Your task to perform on an android device: change keyboard looks Image 0: 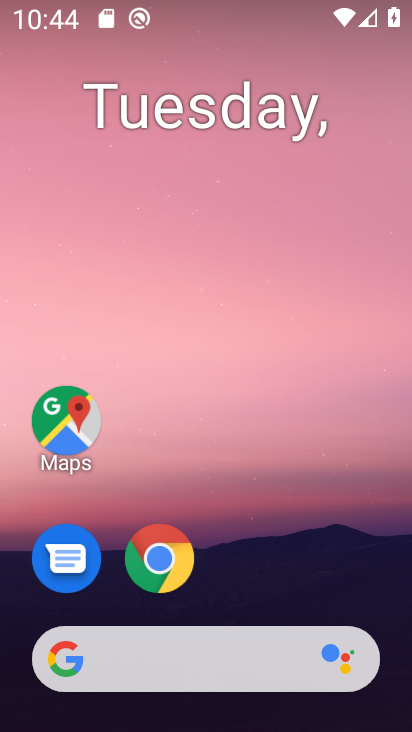
Step 0: drag from (334, 567) to (351, 64)
Your task to perform on an android device: change keyboard looks Image 1: 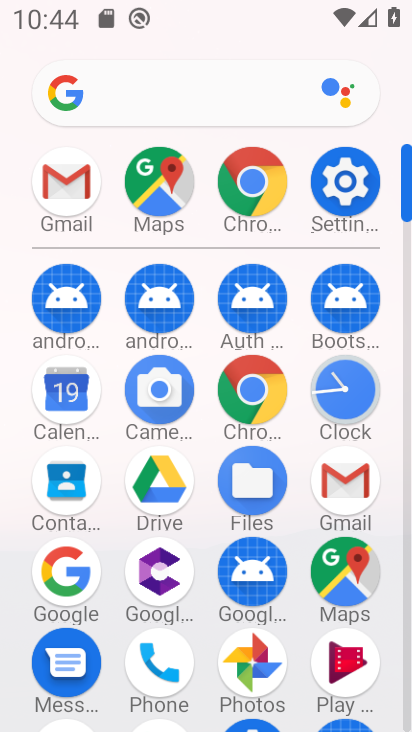
Step 1: click (361, 192)
Your task to perform on an android device: change keyboard looks Image 2: 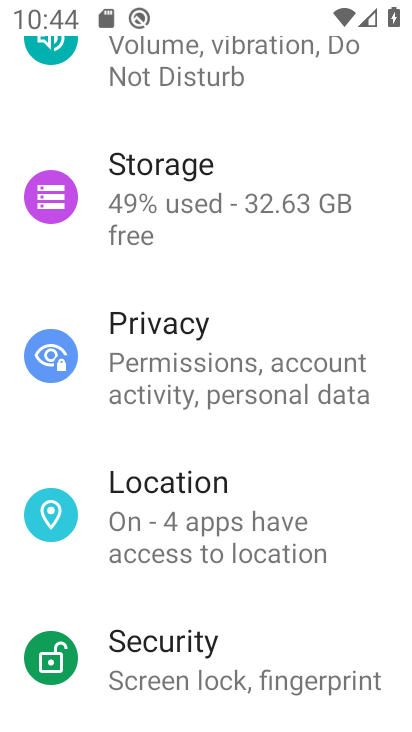
Step 2: drag from (375, 190) to (380, 293)
Your task to perform on an android device: change keyboard looks Image 3: 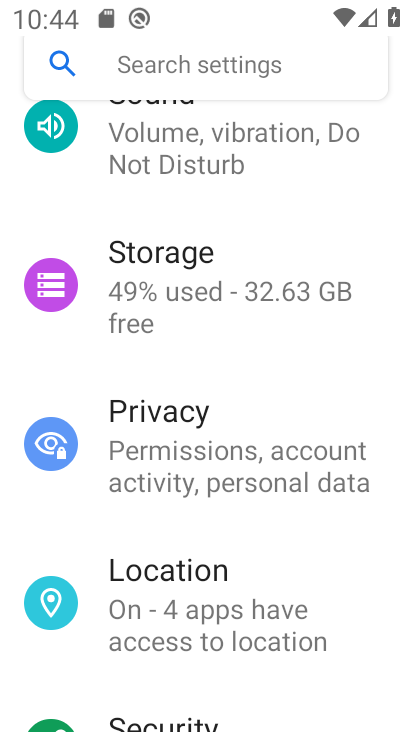
Step 3: drag from (377, 178) to (363, 286)
Your task to perform on an android device: change keyboard looks Image 4: 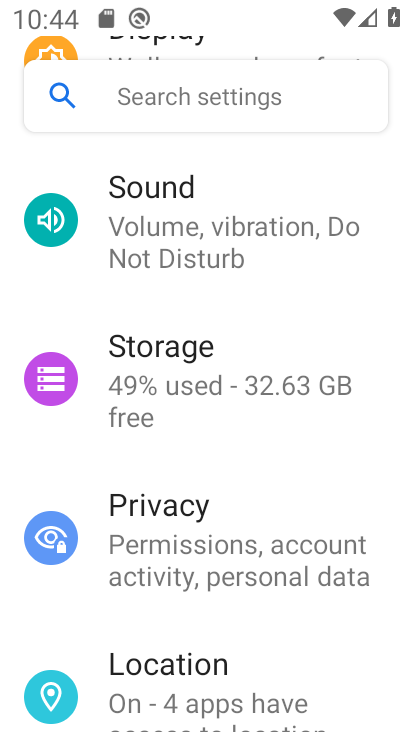
Step 4: drag from (379, 169) to (373, 313)
Your task to perform on an android device: change keyboard looks Image 5: 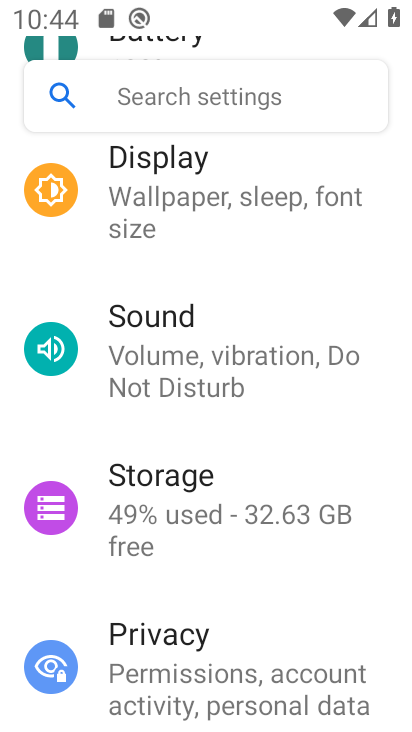
Step 5: drag from (377, 166) to (378, 298)
Your task to perform on an android device: change keyboard looks Image 6: 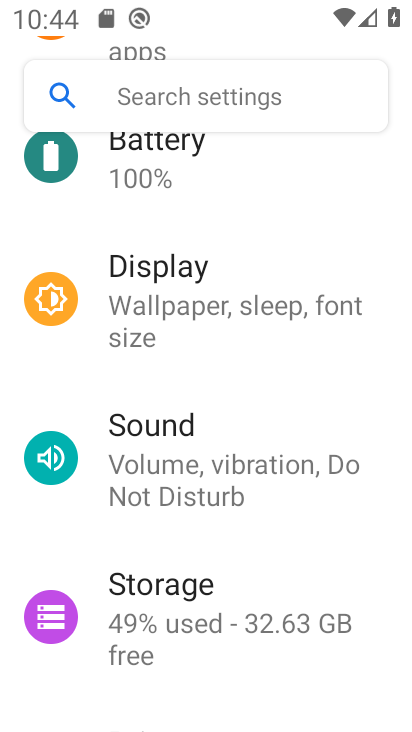
Step 6: drag from (365, 162) to (362, 301)
Your task to perform on an android device: change keyboard looks Image 7: 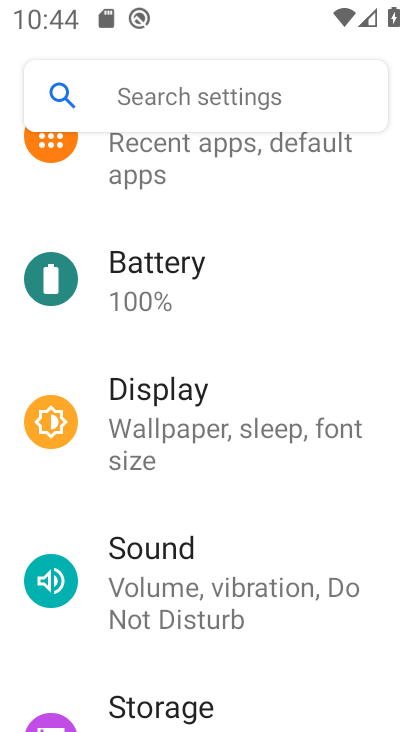
Step 7: drag from (366, 160) to (363, 339)
Your task to perform on an android device: change keyboard looks Image 8: 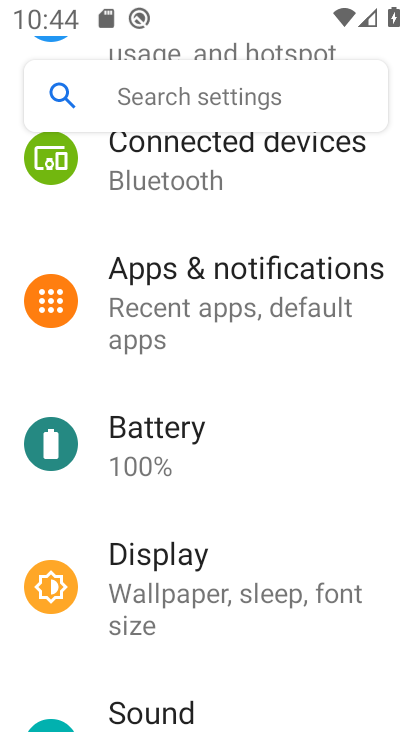
Step 8: drag from (365, 178) to (358, 399)
Your task to perform on an android device: change keyboard looks Image 9: 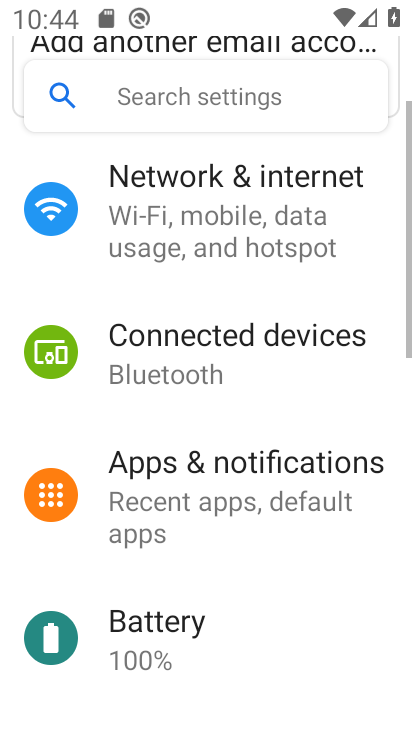
Step 9: drag from (357, 399) to (365, 291)
Your task to perform on an android device: change keyboard looks Image 10: 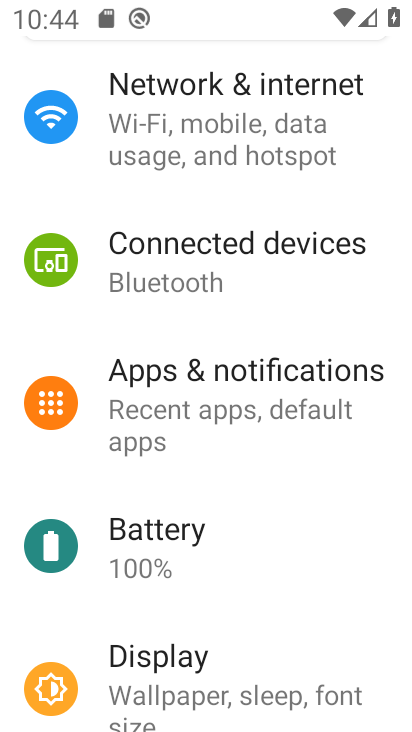
Step 10: drag from (349, 431) to (358, 306)
Your task to perform on an android device: change keyboard looks Image 11: 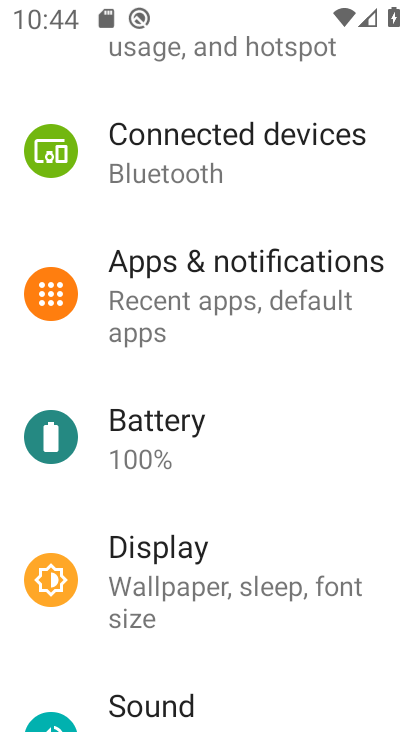
Step 11: drag from (341, 430) to (359, 309)
Your task to perform on an android device: change keyboard looks Image 12: 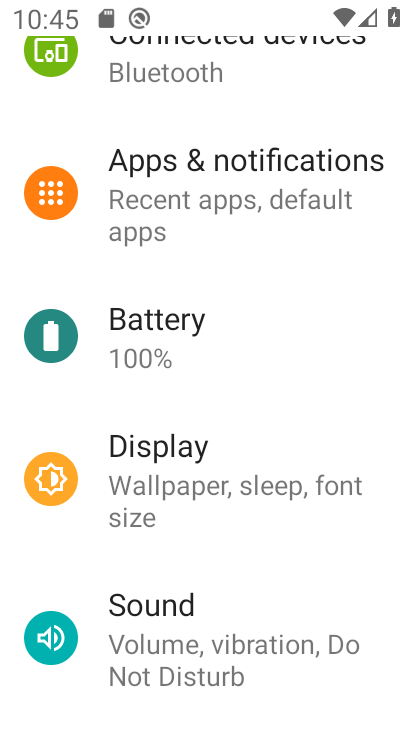
Step 12: drag from (347, 429) to (367, 306)
Your task to perform on an android device: change keyboard looks Image 13: 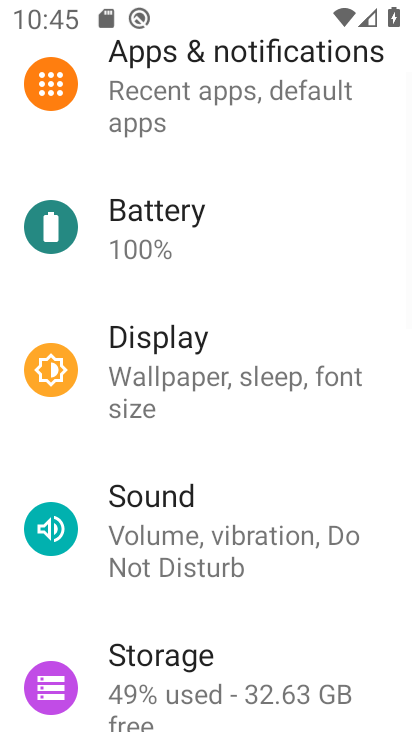
Step 13: drag from (360, 440) to (360, 321)
Your task to perform on an android device: change keyboard looks Image 14: 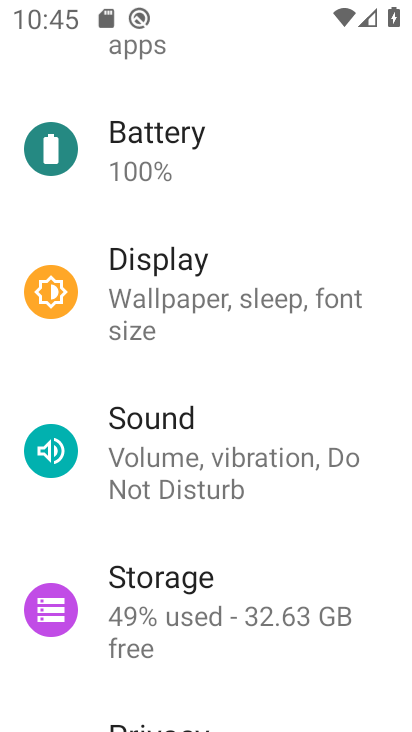
Step 14: drag from (353, 443) to (364, 313)
Your task to perform on an android device: change keyboard looks Image 15: 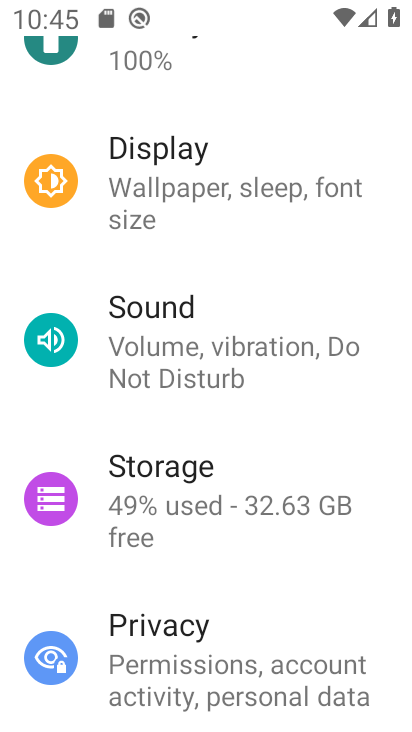
Step 15: drag from (367, 441) to (377, 349)
Your task to perform on an android device: change keyboard looks Image 16: 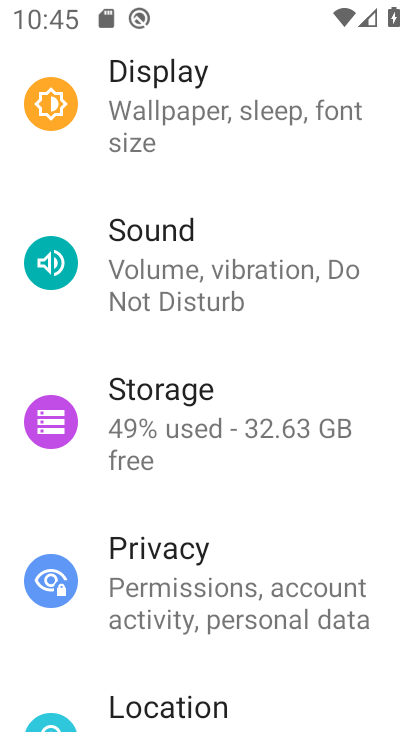
Step 16: drag from (359, 478) to (372, 354)
Your task to perform on an android device: change keyboard looks Image 17: 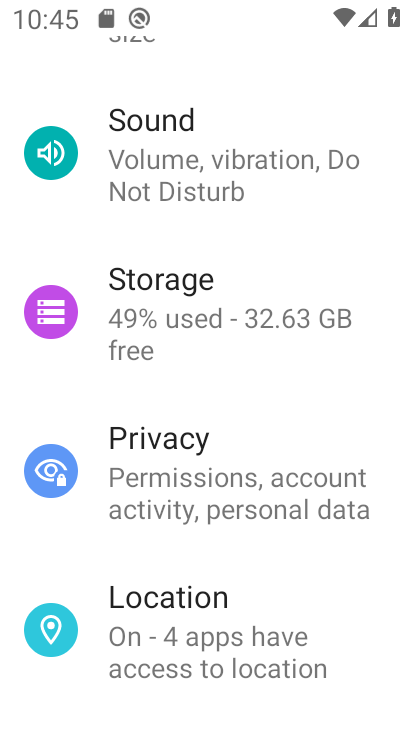
Step 17: drag from (361, 568) to (369, 427)
Your task to perform on an android device: change keyboard looks Image 18: 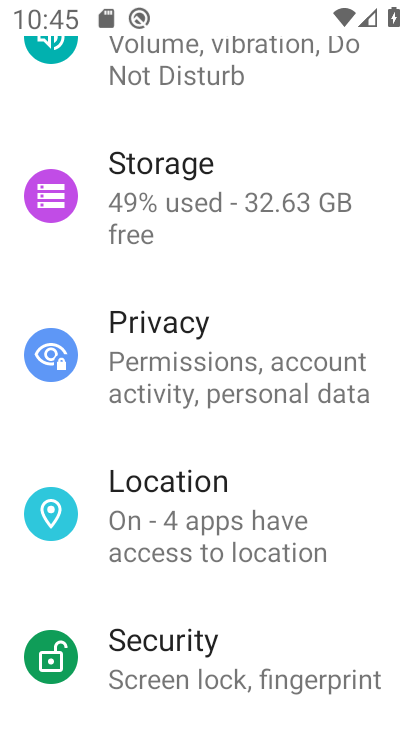
Step 18: drag from (351, 591) to (350, 430)
Your task to perform on an android device: change keyboard looks Image 19: 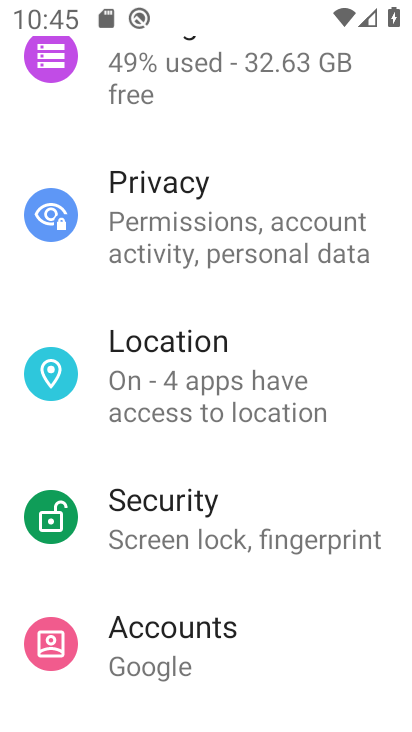
Step 19: drag from (350, 593) to (355, 421)
Your task to perform on an android device: change keyboard looks Image 20: 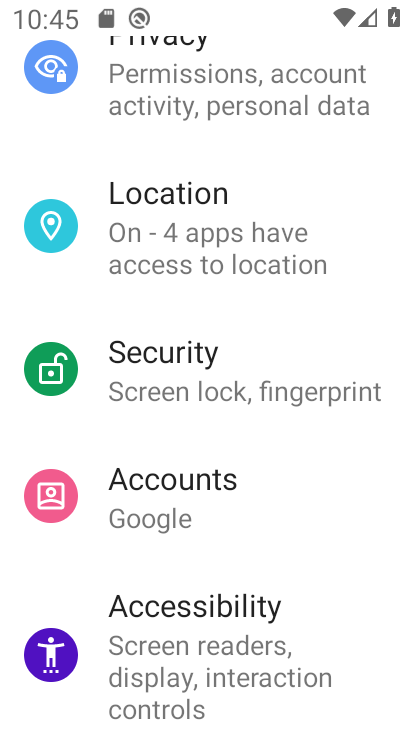
Step 20: drag from (341, 592) to (341, 424)
Your task to perform on an android device: change keyboard looks Image 21: 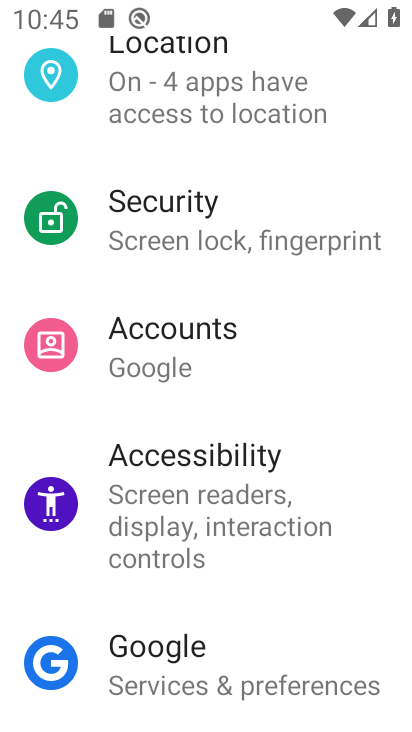
Step 21: drag from (340, 574) to (349, 361)
Your task to perform on an android device: change keyboard looks Image 22: 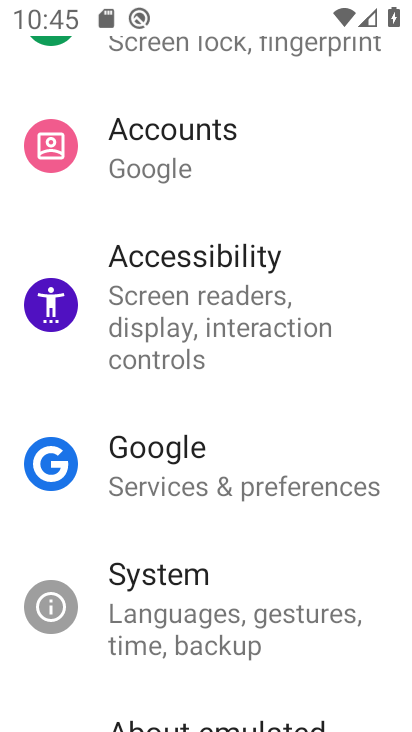
Step 22: click (307, 606)
Your task to perform on an android device: change keyboard looks Image 23: 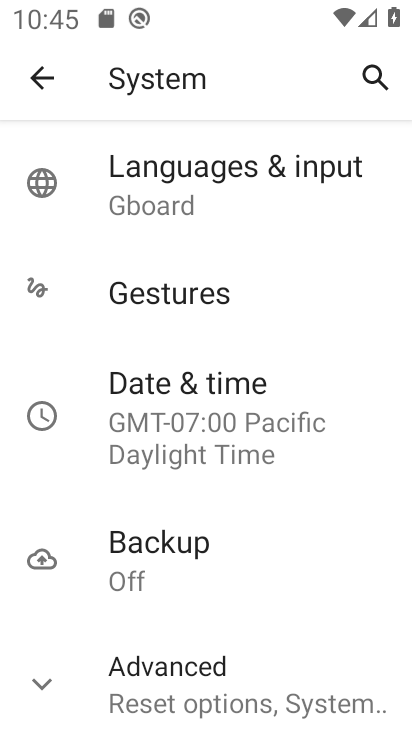
Step 23: click (224, 201)
Your task to perform on an android device: change keyboard looks Image 24: 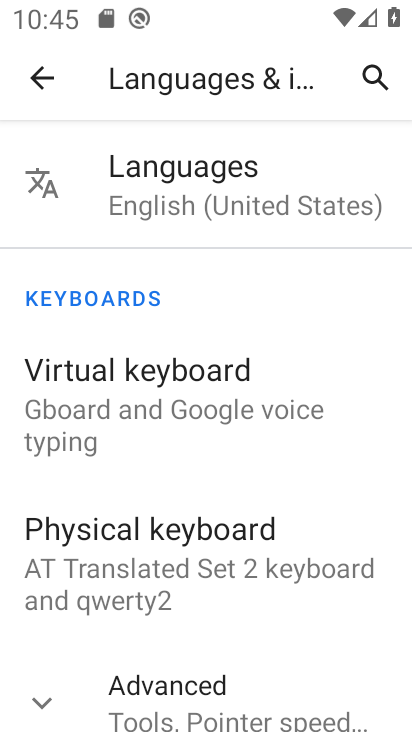
Step 24: click (216, 383)
Your task to perform on an android device: change keyboard looks Image 25: 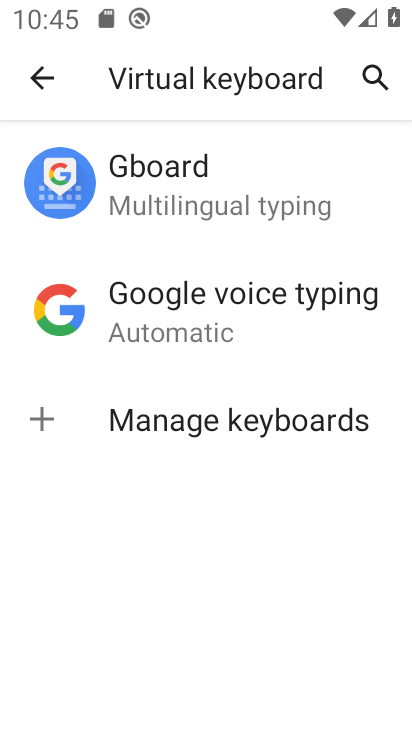
Step 25: click (205, 217)
Your task to perform on an android device: change keyboard looks Image 26: 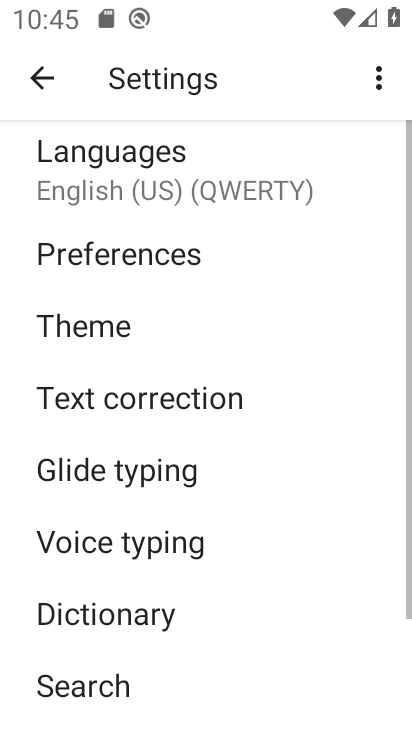
Step 26: click (172, 330)
Your task to perform on an android device: change keyboard looks Image 27: 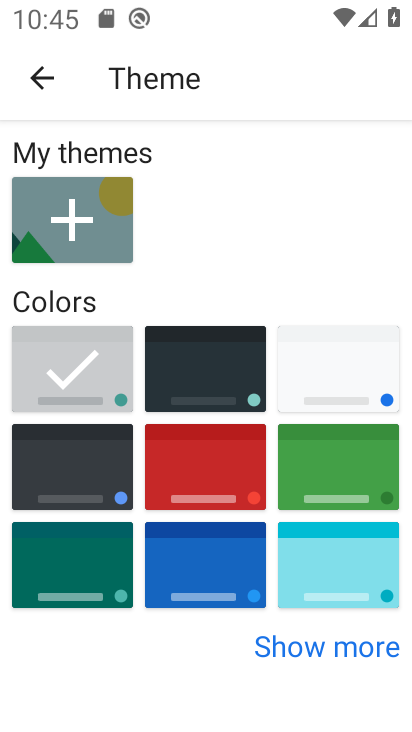
Step 27: click (204, 452)
Your task to perform on an android device: change keyboard looks Image 28: 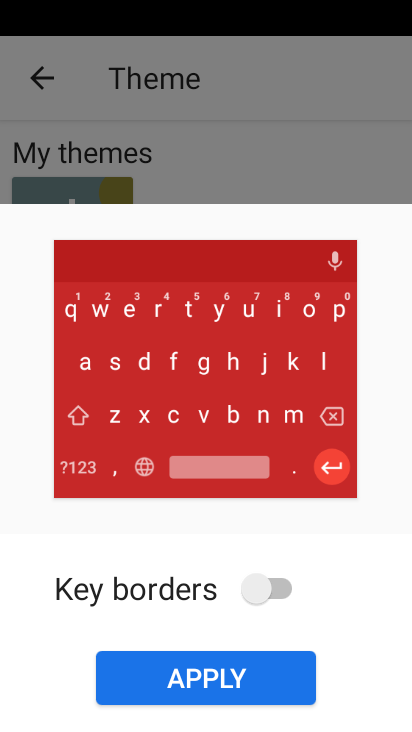
Step 28: click (227, 681)
Your task to perform on an android device: change keyboard looks Image 29: 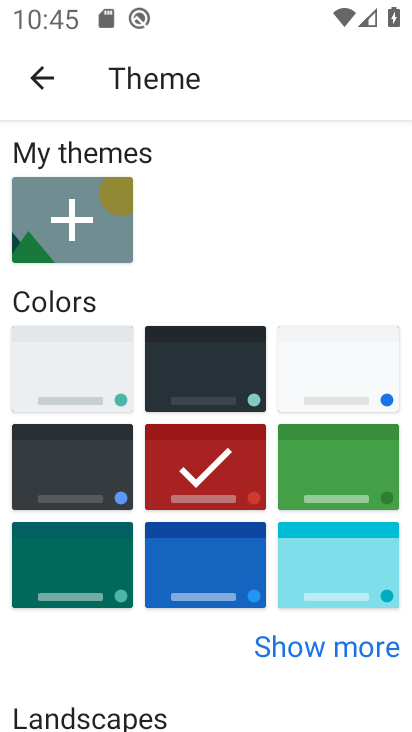
Step 29: task complete